Your task to perform on an android device: turn on airplane mode Image 0: 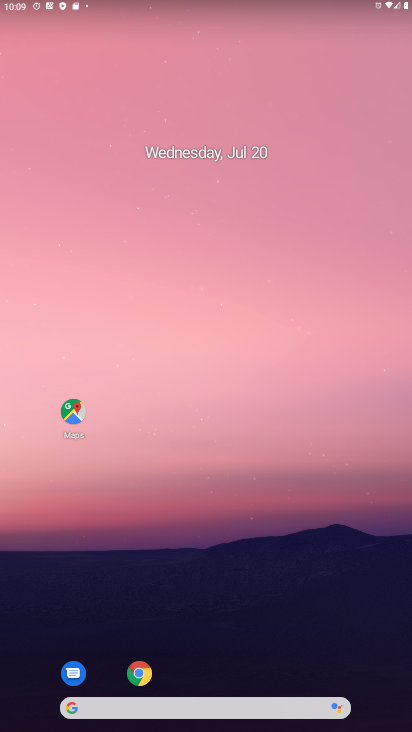
Step 0: drag from (199, 715) to (201, 168)
Your task to perform on an android device: turn on airplane mode Image 1: 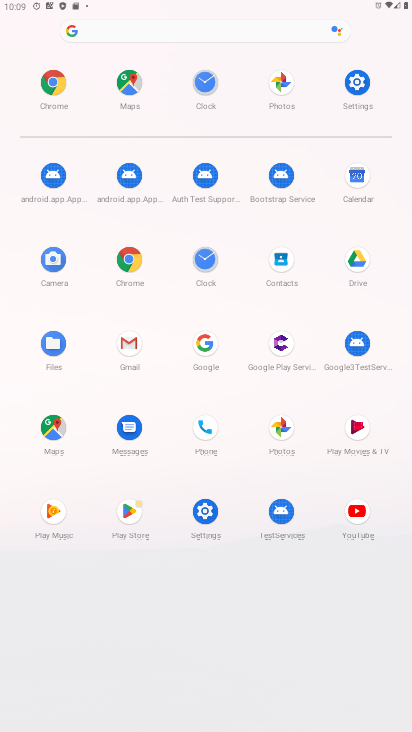
Step 1: click (359, 82)
Your task to perform on an android device: turn on airplane mode Image 2: 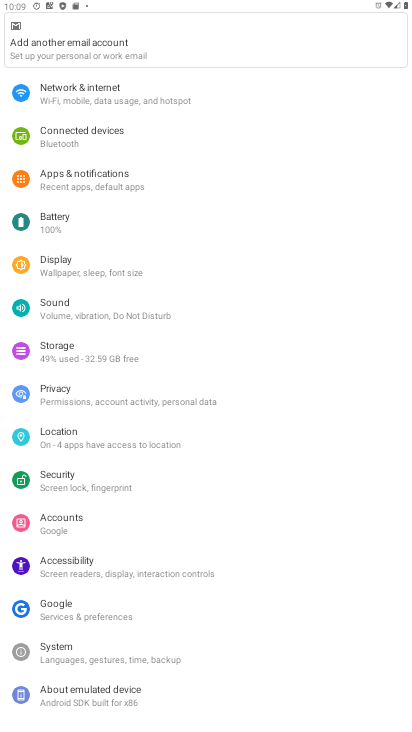
Step 2: click (63, 104)
Your task to perform on an android device: turn on airplane mode Image 3: 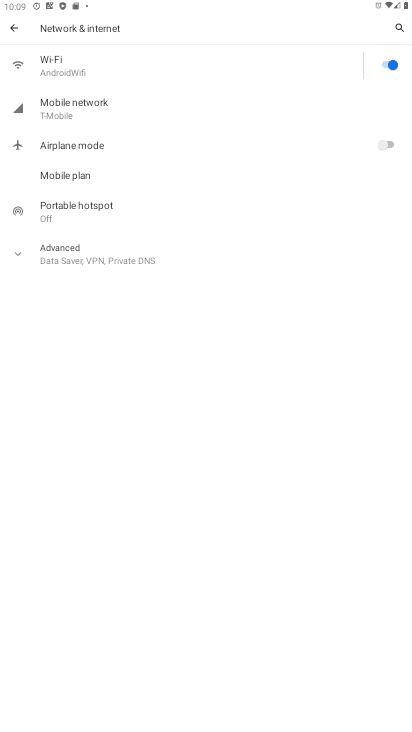
Step 3: click (392, 142)
Your task to perform on an android device: turn on airplane mode Image 4: 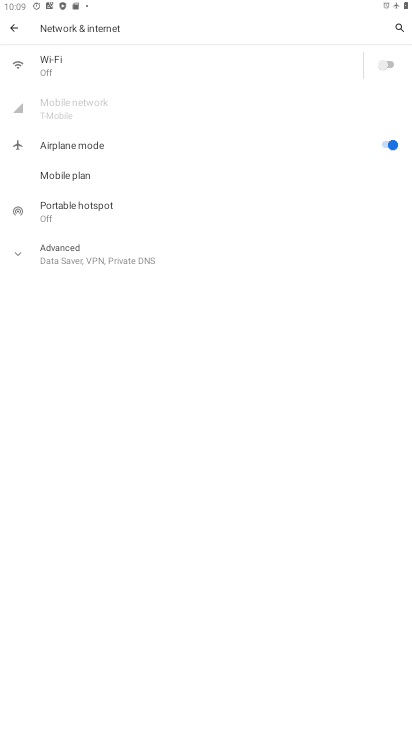
Step 4: task complete